Your task to perform on an android device: empty trash in google photos Image 0: 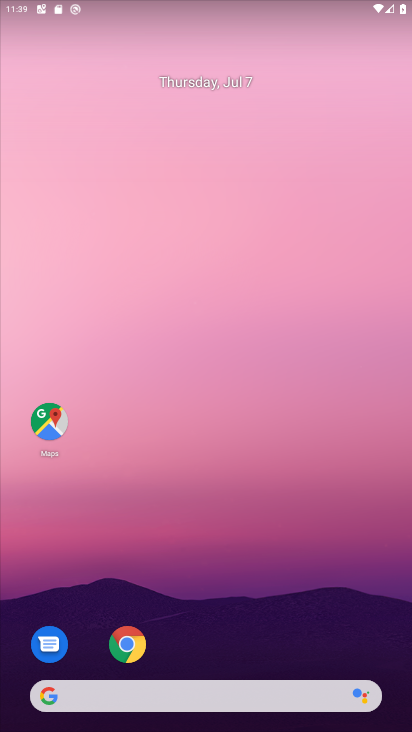
Step 0: drag from (27, 705) to (147, 145)
Your task to perform on an android device: empty trash in google photos Image 1: 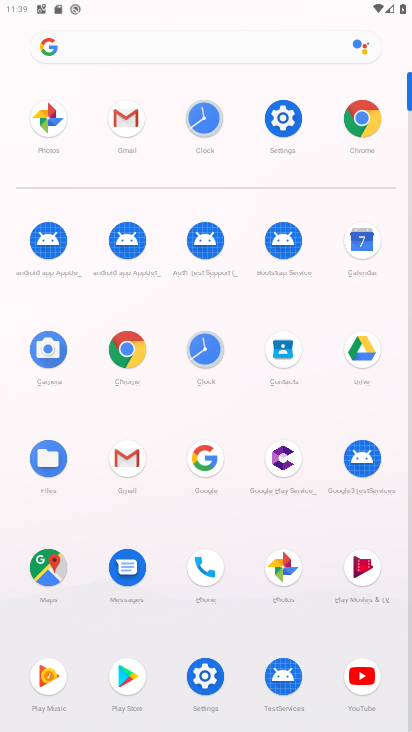
Step 1: click (282, 558)
Your task to perform on an android device: empty trash in google photos Image 2: 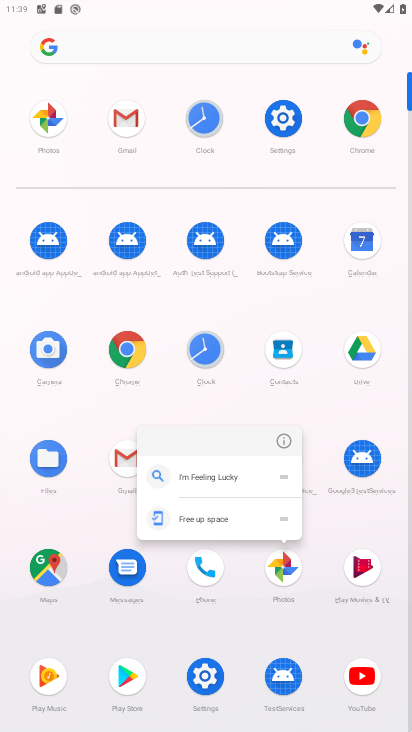
Step 2: click (294, 566)
Your task to perform on an android device: empty trash in google photos Image 3: 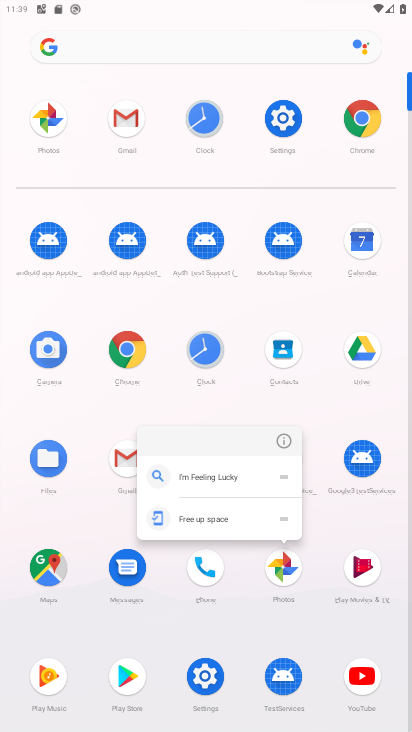
Step 3: click (285, 566)
Your task to perform on an android device: empty trash in google photos Image 4: 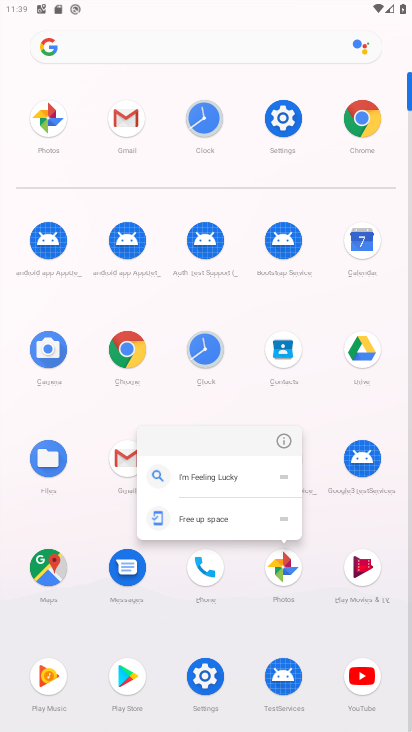
Step 4: click (274, 546)
Your task to perform on an android device: empty trash in google photos Image 5: 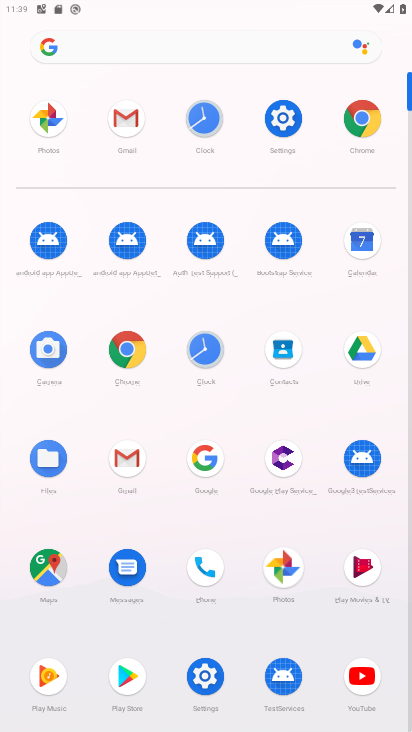
Step 5: click (275, 580)
Your task to perform on an android device: empty trash in google photos Image 6: 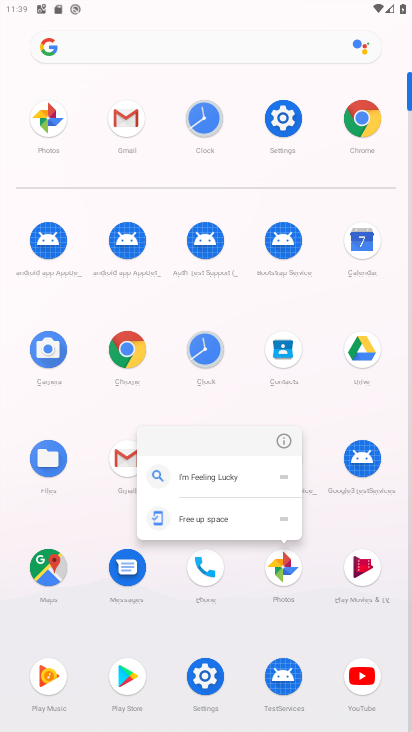
Step 6: click (276, 585)
Your task to perform on an android device: empty trash in google photos Image 7: 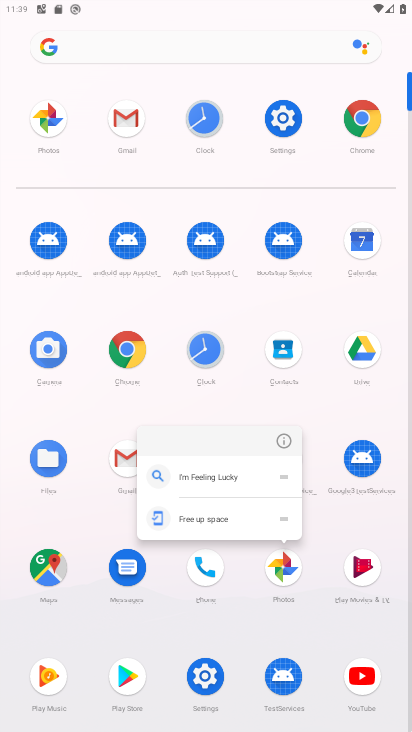
Step 7: click (285, 555)
Your task to perform on an android device: empty trash in google photos Image 8: 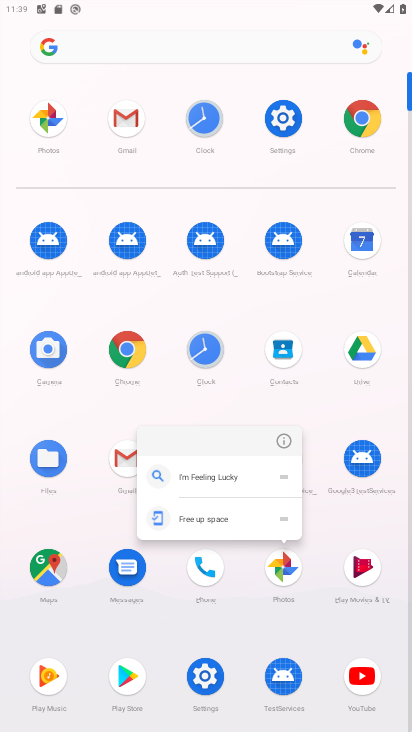
Step 8: task complete